Your task to perform on an android device: toggle airplane mode Image 0: 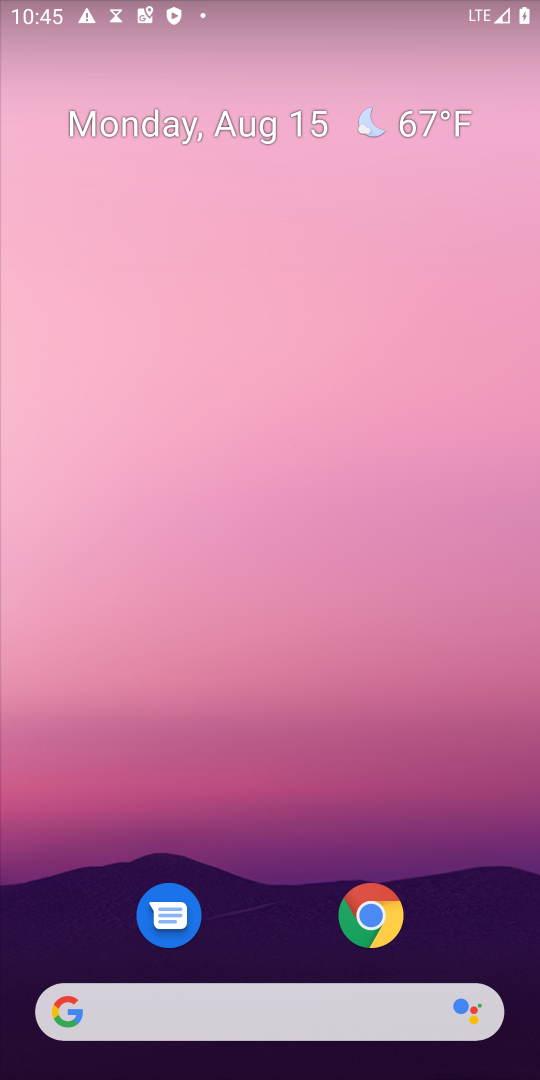
Step 0: press home button
Your task to perform on an android device: toggle airplane mode Image 1: 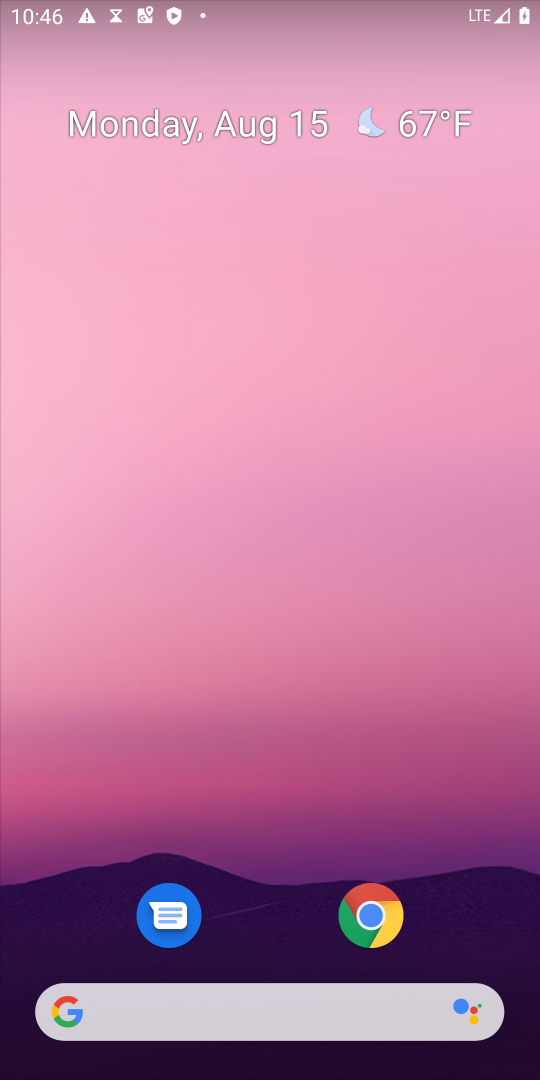
Step 1: drag from (299, 49) to (317, 819)
Your task to perform on an android device: toggle airplane mode Image 2: 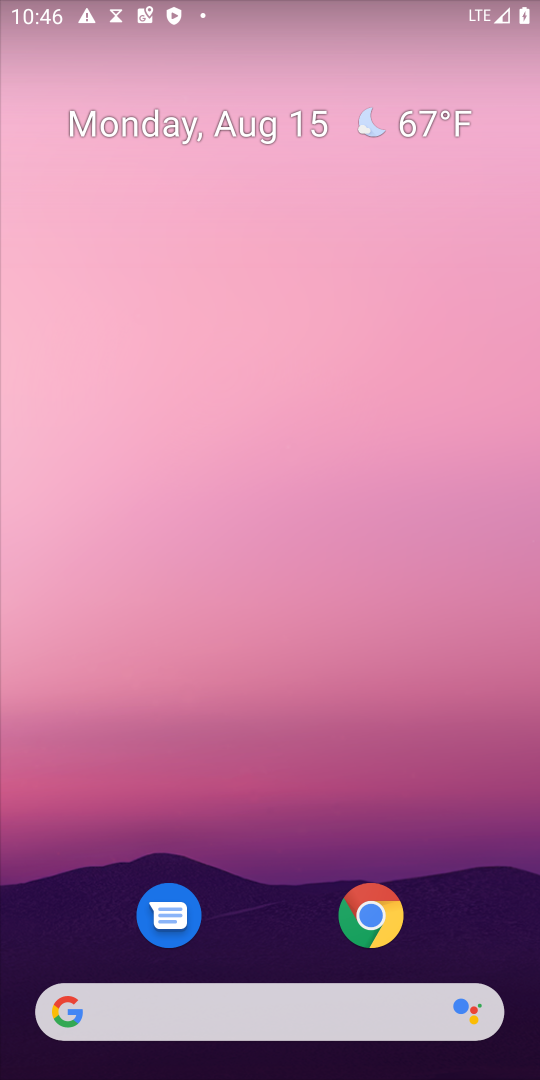
Step 2: drag from (287, 115) to (396, 928)
Your task to perform on an android device: toggle airplane mode Image 3: 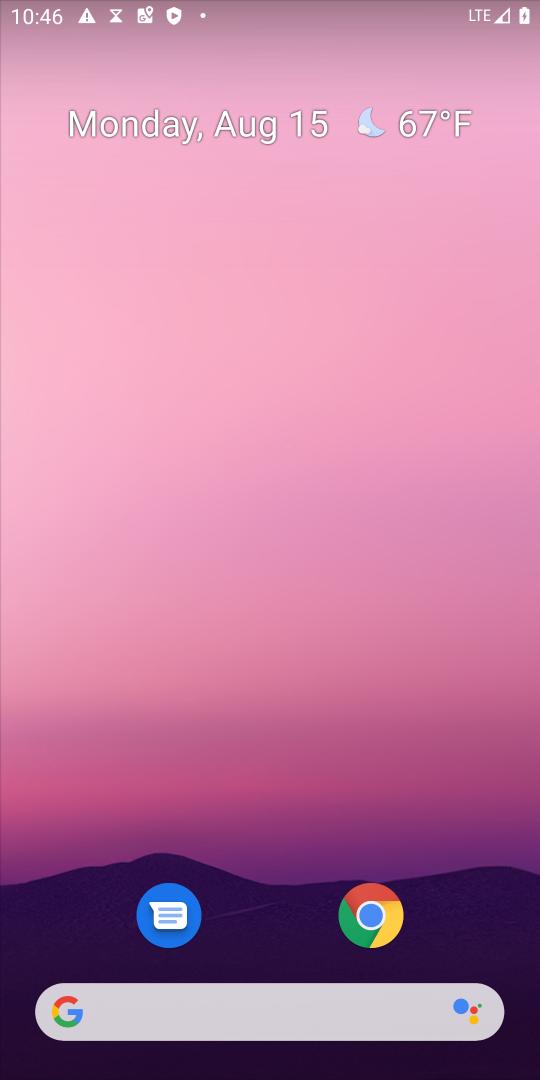
Step 3: drag from (283, 79) to (269, 782)
Your task to perform on an android device: toggle airplane mode Image 4: 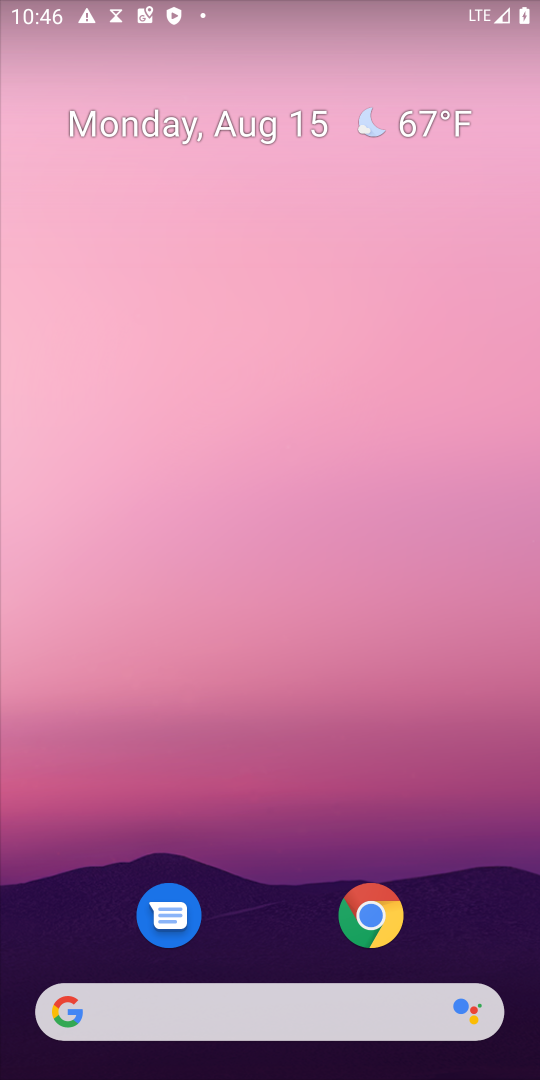
Step 4: drag from (291, 31) to (298, 1074)
Your task to perform on an android device: toggle airplane mode Image 5: 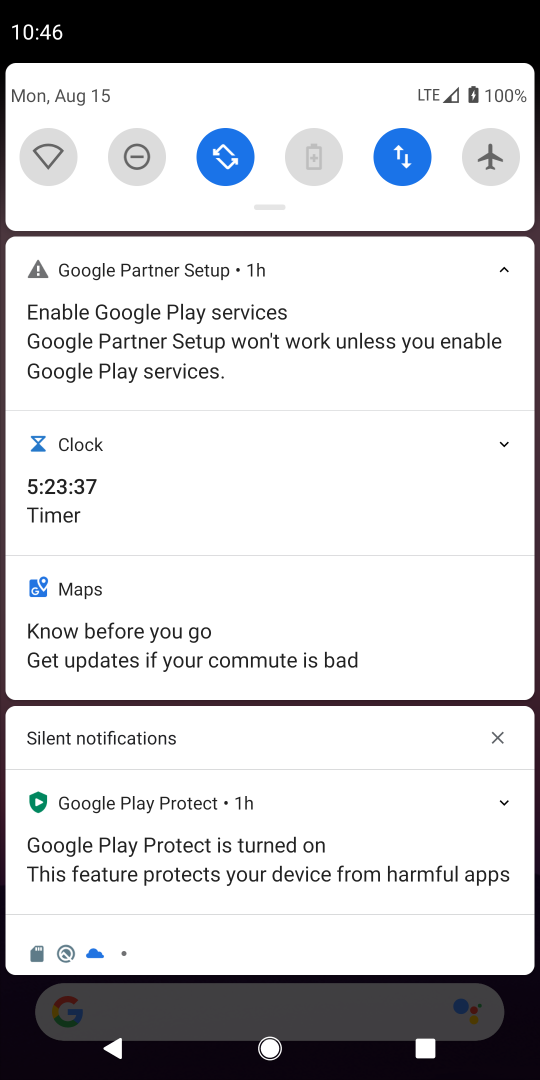
Step 5: click (498, 154)
Your task to perform on an android device: toggle airplane mode Image 6: 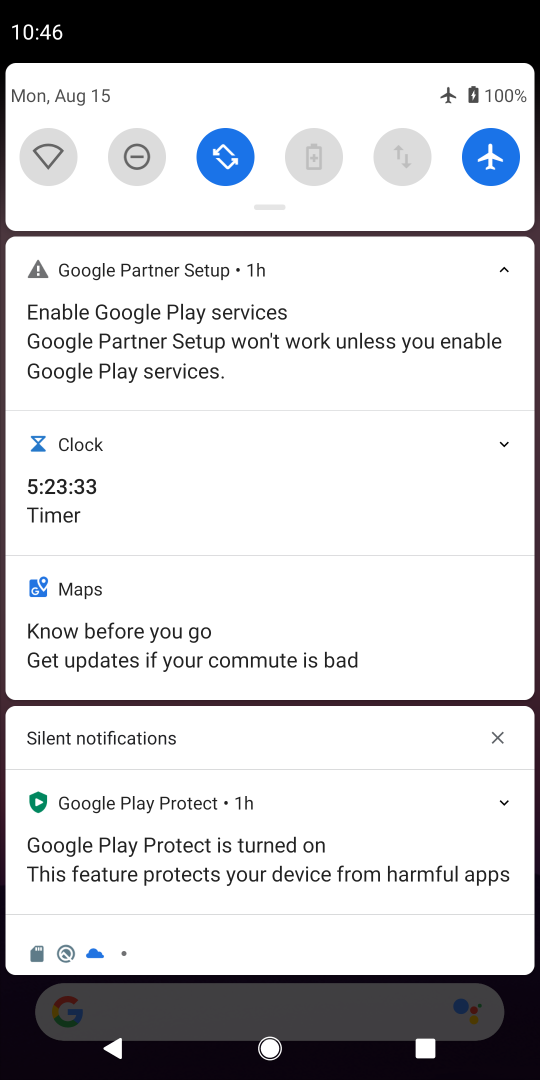
Step 6: task complete